Your task to perform on an android device: Open Yahoo.com Image 0: 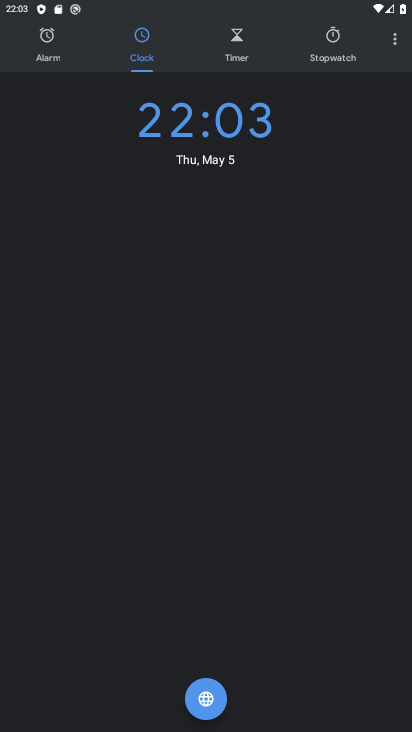
Step 0: press home button
Your task to perform on an android device: Open Yahoo.com Image 1: 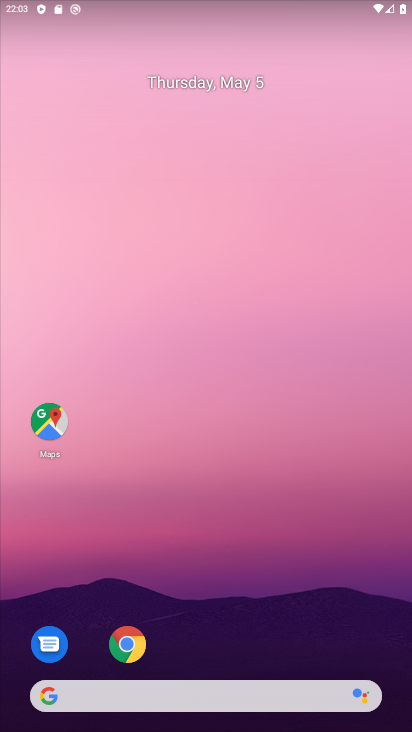
Step 1: click (118, 647)
Your task to perform on an android device: Open Yahoo.com Image 2: 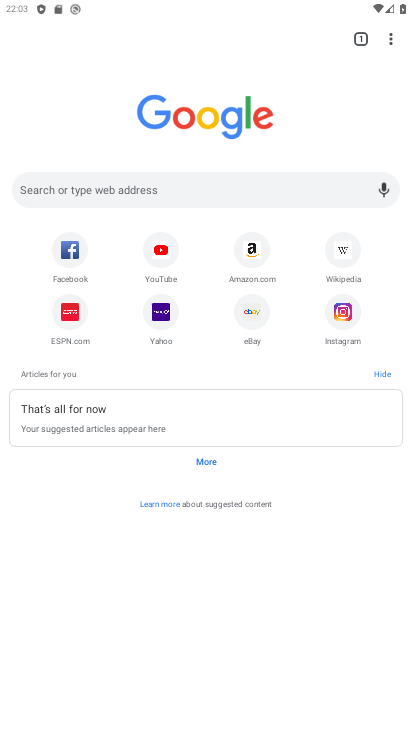
Step 2: click (156, 325)
Your task to perform on an android device: Open Yahoo.com Image 3: 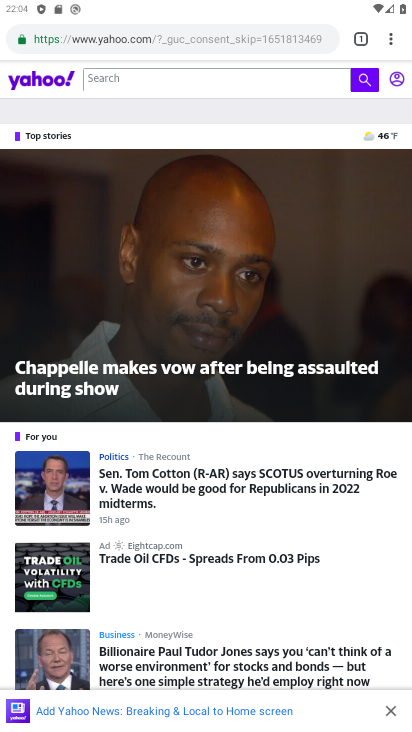
Step 3: task complete